Your task to perform on an android device: Open calendar and show me the second week of next month Image 0: 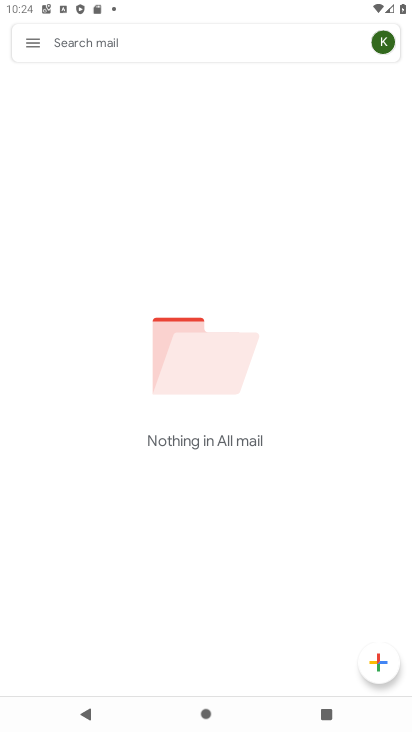
Step 0: press home button
Your task to perform on an android device: Open calendar and show me the second week of next month Image 1: 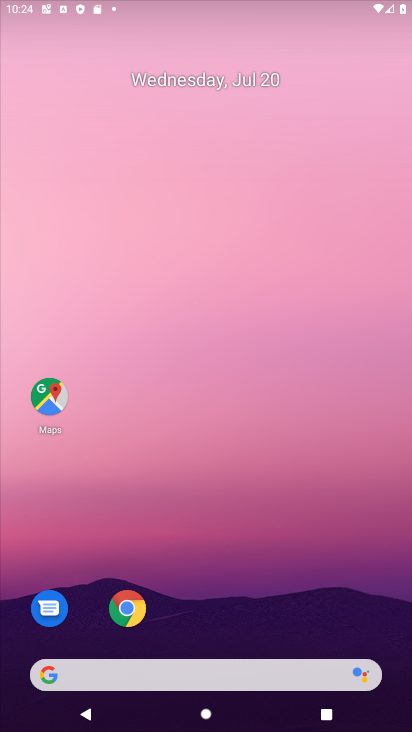
Step 1: drag from (256, 590) to (289, 54)
Your task to perform on an android device: Open calendar and show me the second week of next month Image 2: 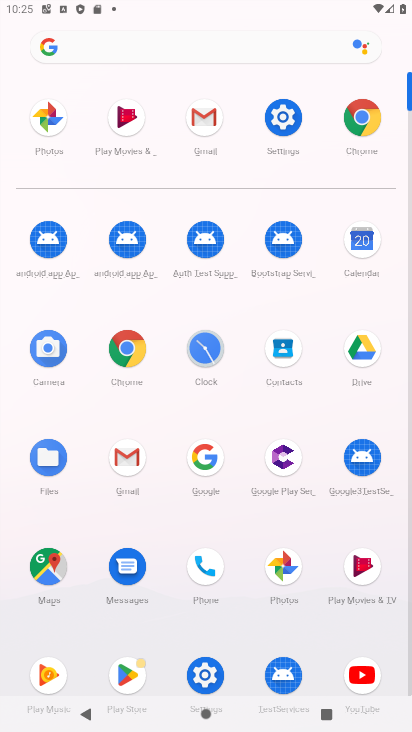
Step 2: click (358, 247)
Your task to perform on an android device: Open calendar and show me the second week of next month Image 3: 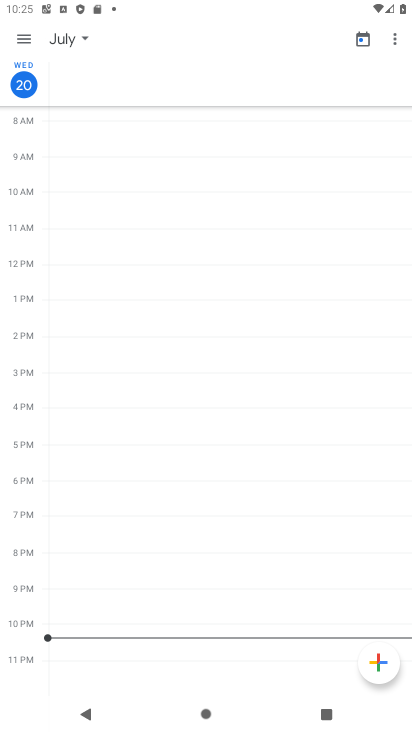
Step 3: click (26, 34)
Your task to perform on an android device: Open calendar and show me the second week of next month Image 4: 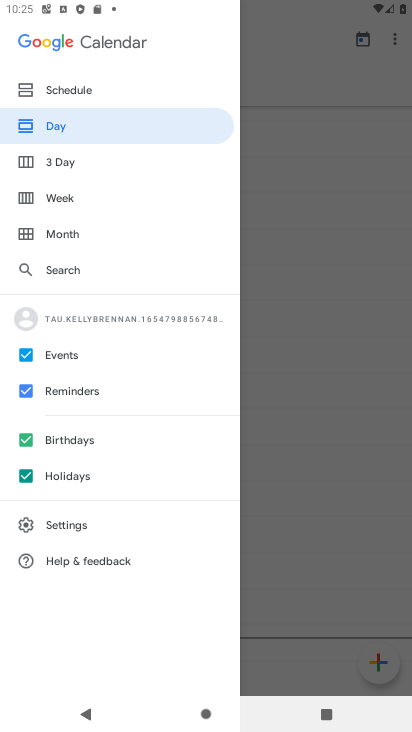
Step 4: click (87, 204)
Your task to perform on an android device: Open calendar and show me the second week of next month Image 5: 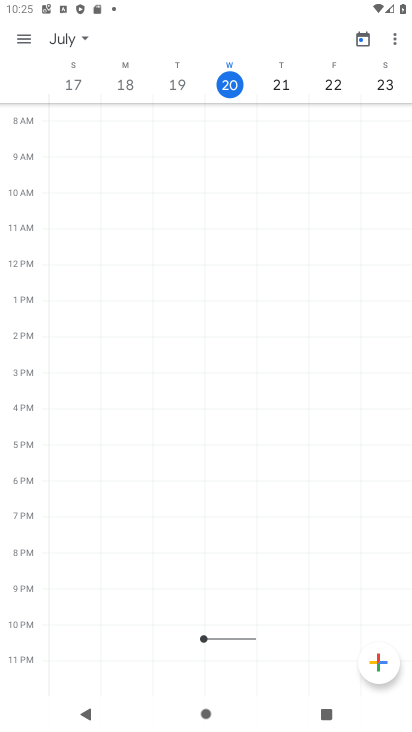
Step 5: click (75, 41)
Your task to perform on an android device: Open calendar and show me the second week of next month Image 6: 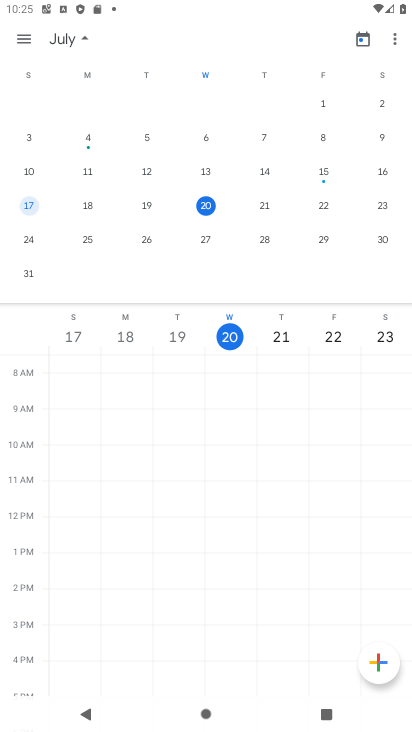
Step 6: drag from (323, 215) to (20, 262)
Your task to perform on an android device: Open calendar and show me the second week of next month Image 7: 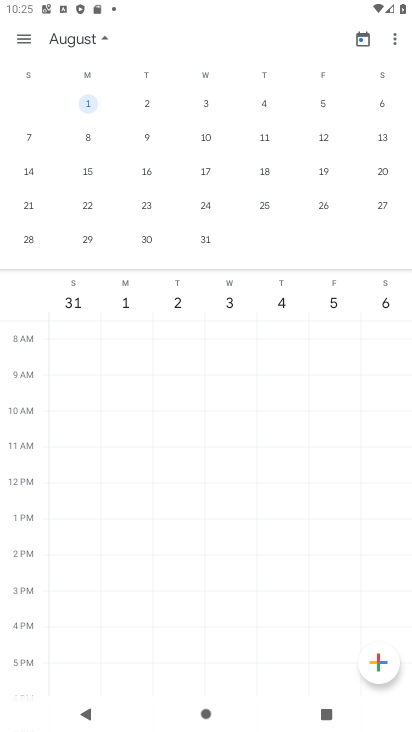
Step 7: click (18, 141)
Your task to perform on an android device: Open calendar and show me the second week of next month Image 8: 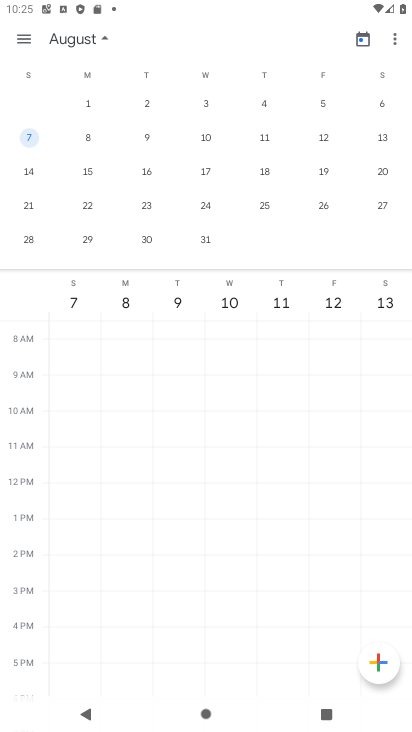
Step 8: click (101, 26)
Your task to perform on an android device: Open calendar and show me the second week of next month Image 9: 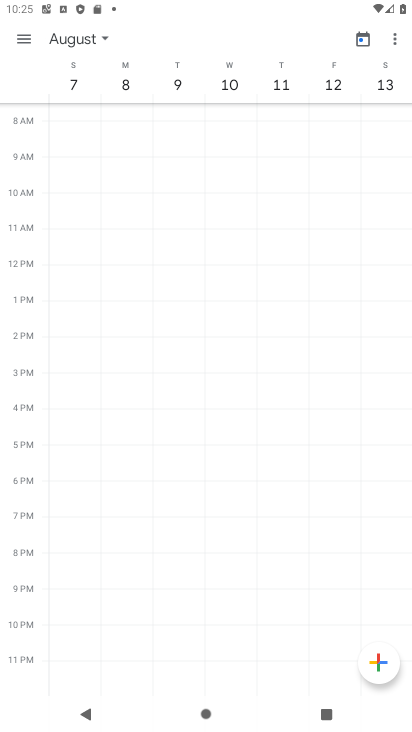
Step 9: task complete